Your task to perform on an android device: add a contact in the contacts app Image 0: 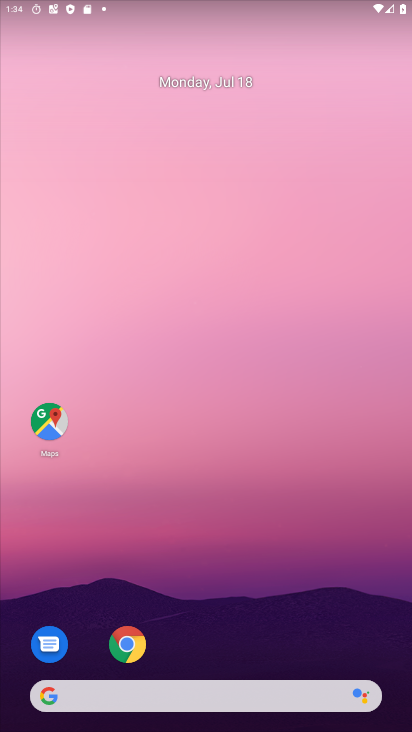
Step 0: drag from (281, 615) to (252, 83)
Your task to perform on an android device: add a contact in the contacts app Image 1: 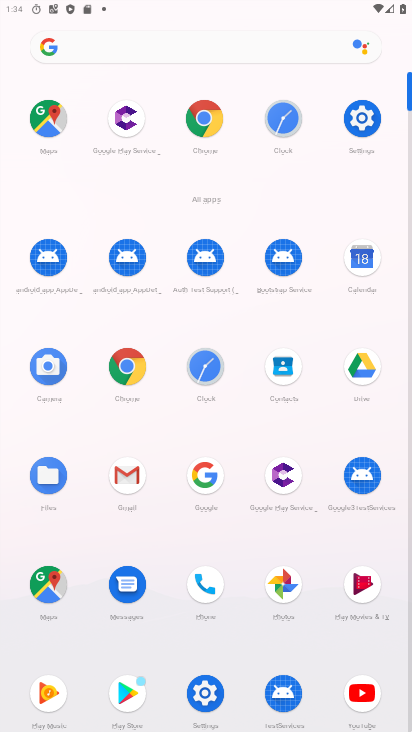
Step 1: click (284, 357)
Your task to perform on an android device: add a contact in the contacts app Image 2: 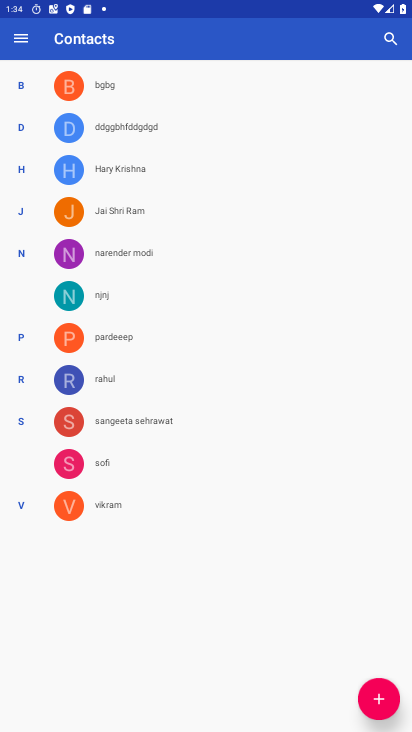
Step 2: click (370, 682)
Your task to perform on an android device: add a contact in the contacts app Image 3: 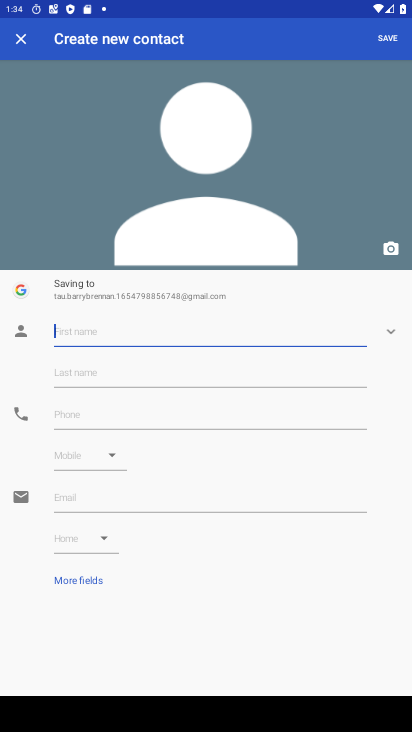
Step 3: type "tang"
Your task to perform on an android device: add a contact in the contacts app Image 4: 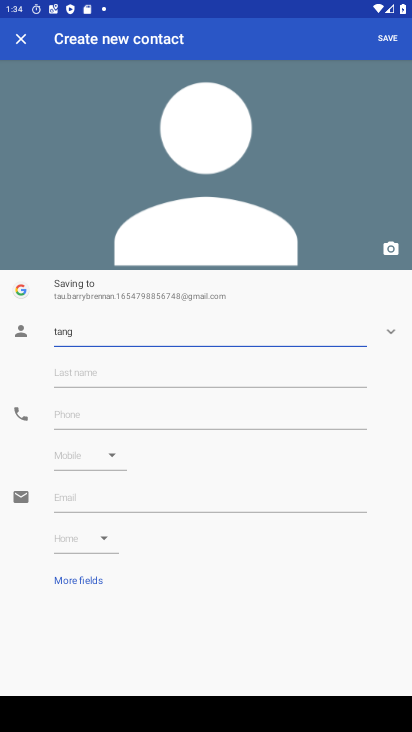
Step 4: click (135, 406)
Your task to perform on an android device: add a contact in the contacts app Image 5: 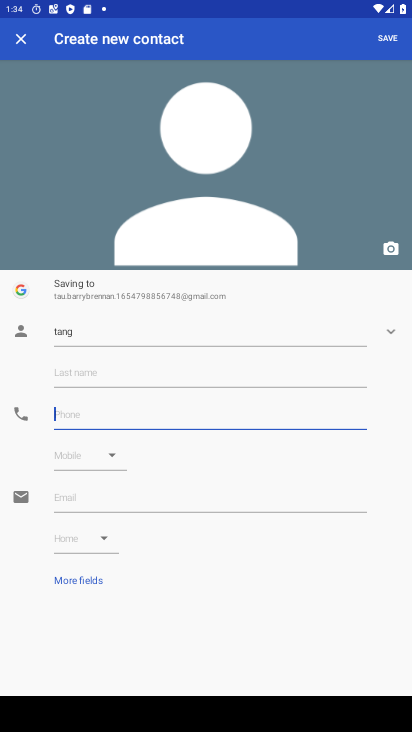
Step 5: type "9275387204"
Your task to perform on an android device: add a contact in the contacts app Image 6: 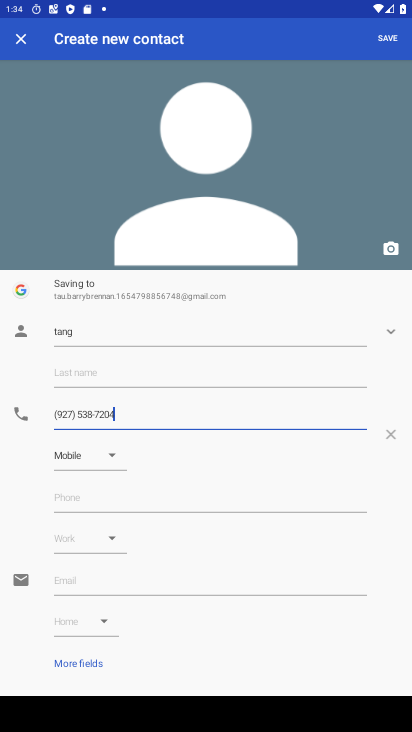
Step 6: click (394, 36)
Your task to perform on an android device: add a contact in the contacts app Image 7: 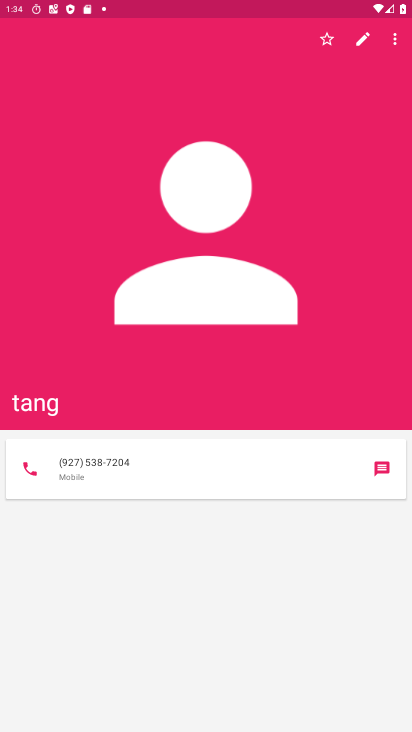
Step 7: task complete